Your task to perform on an android device: turn on notifications settings in the gmail app Image 0: 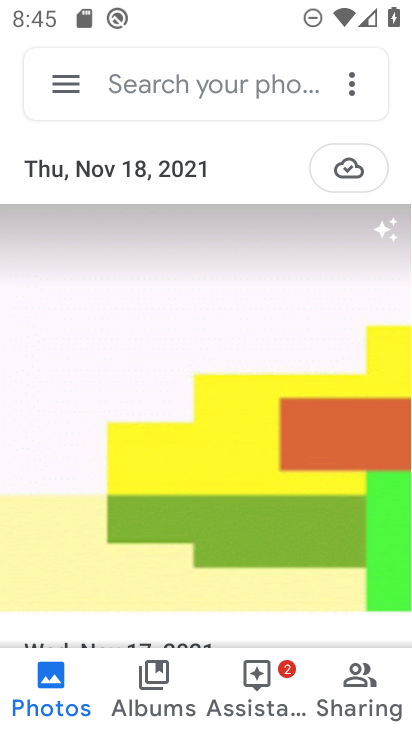
Step 0: press home button
Your task to perform on an android device: turn on notifications settings in the gmail app Image 1: 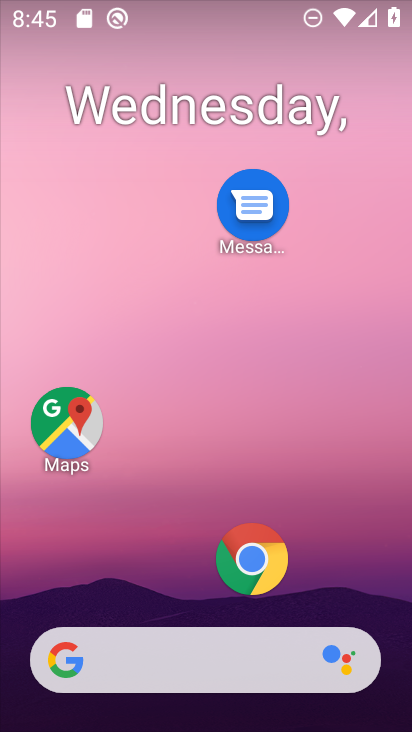
Step 1: drag from (157, 608) to (197, 301)
Your task to perform on an android device: turn on notifications settings in the gmail app Image 2: 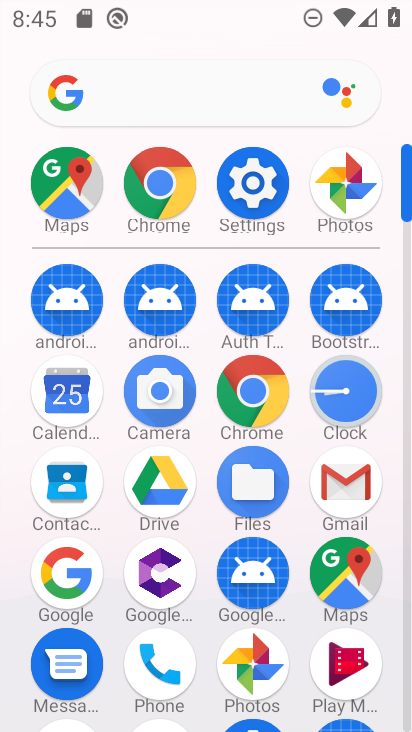
Step 2: click (350, 504)
Your task to perform on an android device: turn on notifications settings in the gmail app Image 3: 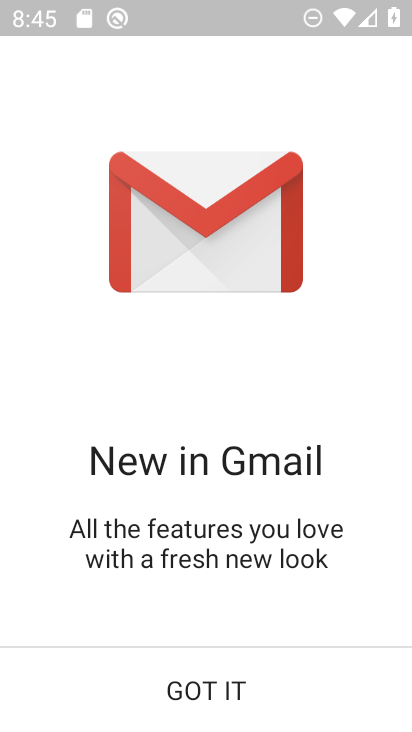
Step 3: click (188, 695)
Your task to perform on an android device: turn on notifications settings in the gmail app Image 4: 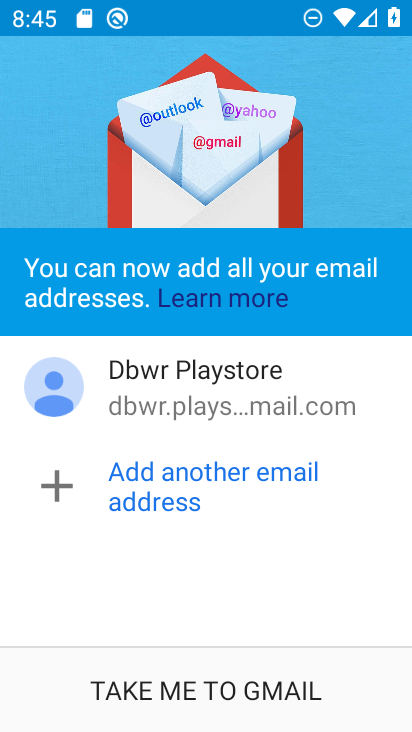
Step 4: click (188, 695)
Your task to perform on an android device: turn on notifications settings in the gmail app Image 5: 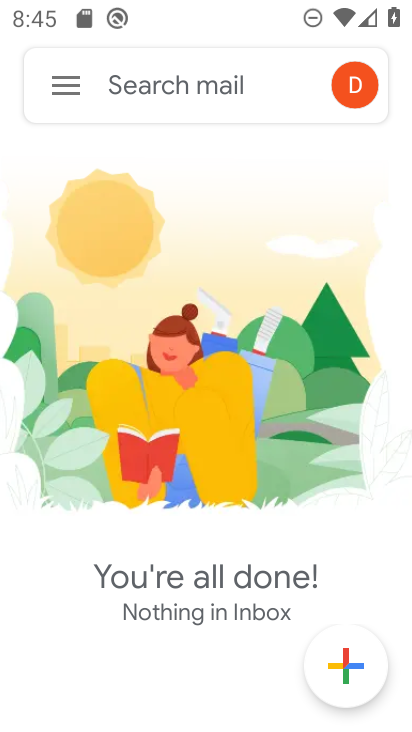
Step 5: click (75, 87)
Your task to perform on an android device: turn on notifications settings in the gmail app Image 6: 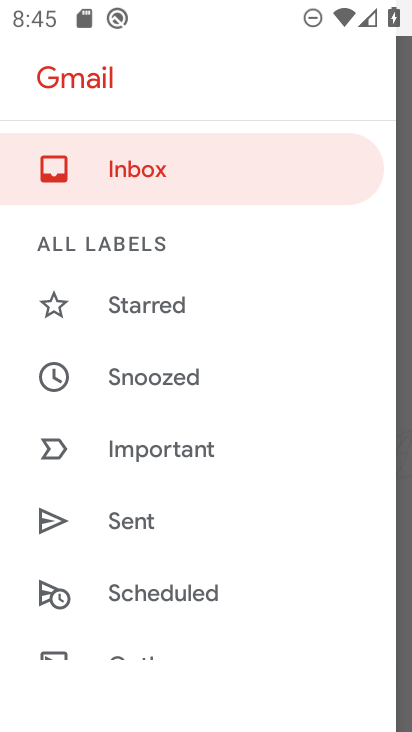
Step 6: drag from (205, 528) to (197, 295)
Your task to perform on an android device: turn on notifications settings in the gmail app Image 7: 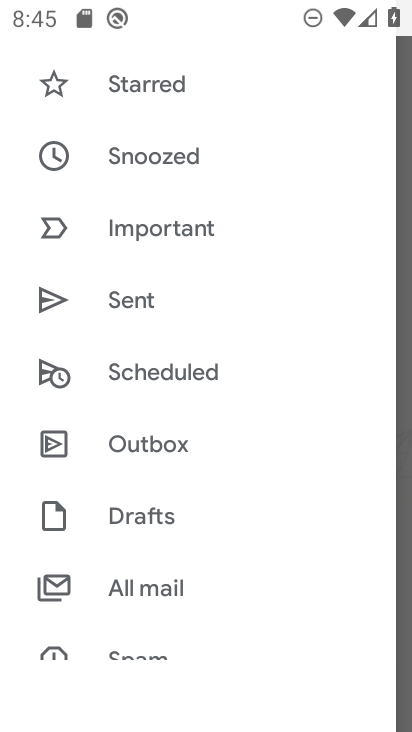
Step 7: drag from (180, 521) to (199, 232)
Your task to perform on an android device: turn on notifications settings in the gmail app Image 8: 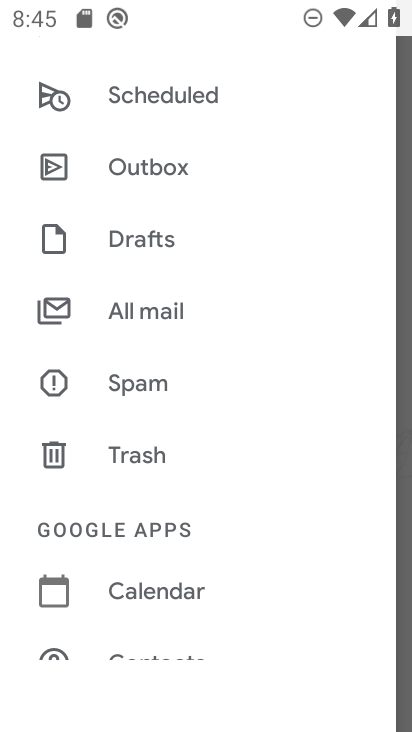
Step 8: drag from (187, 528) to (222, 330)
Your task to perform on an android device: turn on notifications settings in the gmail app Image 9: 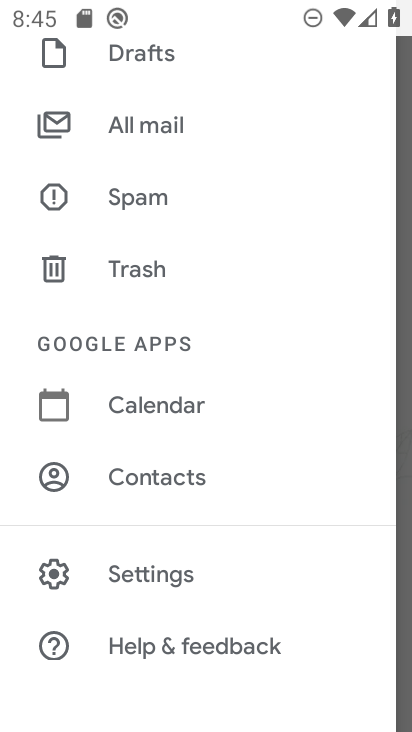
Step 9: click (165, 569)
Your task to perform on an android device: turn on notifications settings in the gmail app Image 10: 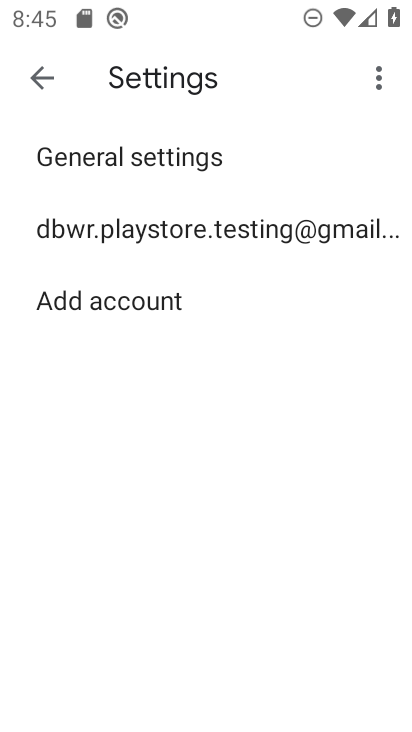
Step 10: click (110, 161)
Your task to perform on an android device: turn on notifications settings in the gmail app Image 11: 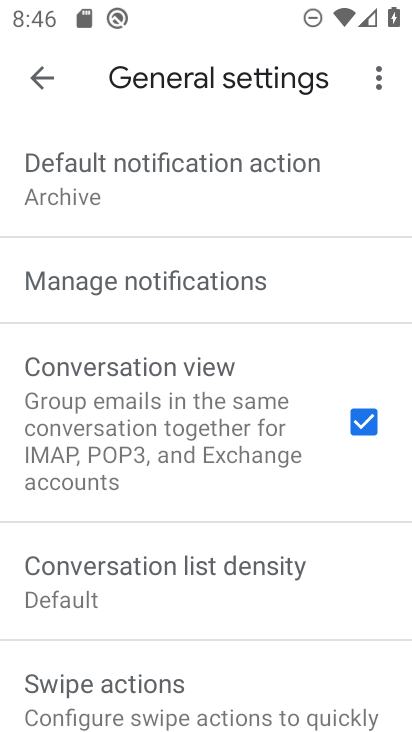
Step 11: click (129, 299)
Your task to perform on an android device: turn on notifications settings in the gmail app Image 12: 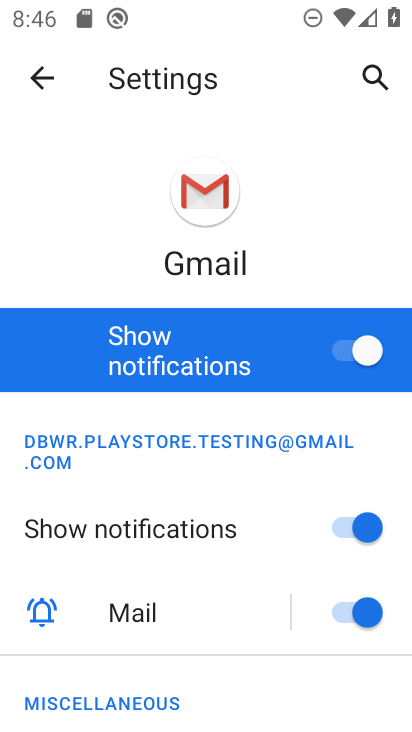
Step 12: task complete